Your task to perform on an android device: Clear the cart on newegg.com. Search for usb-a to usb-b on newegg.com, select the first entry, and add it to the cart. Image 0: 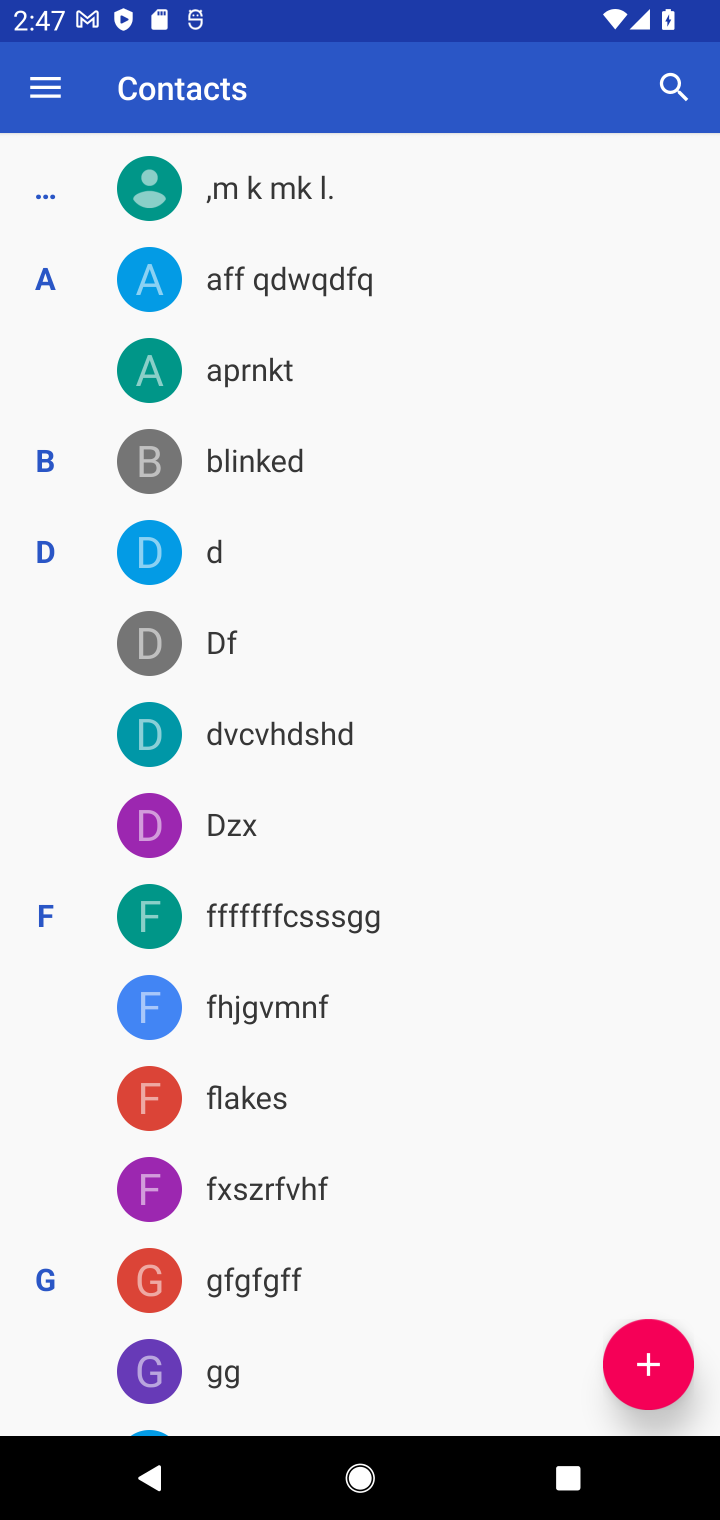
Step 0: press home button
Your task to perform on an android device: Clear the cart on newegg.com. Search for usb-a to usb-b on newegg.com, select the first entry, and add it to the cart. Image 1: 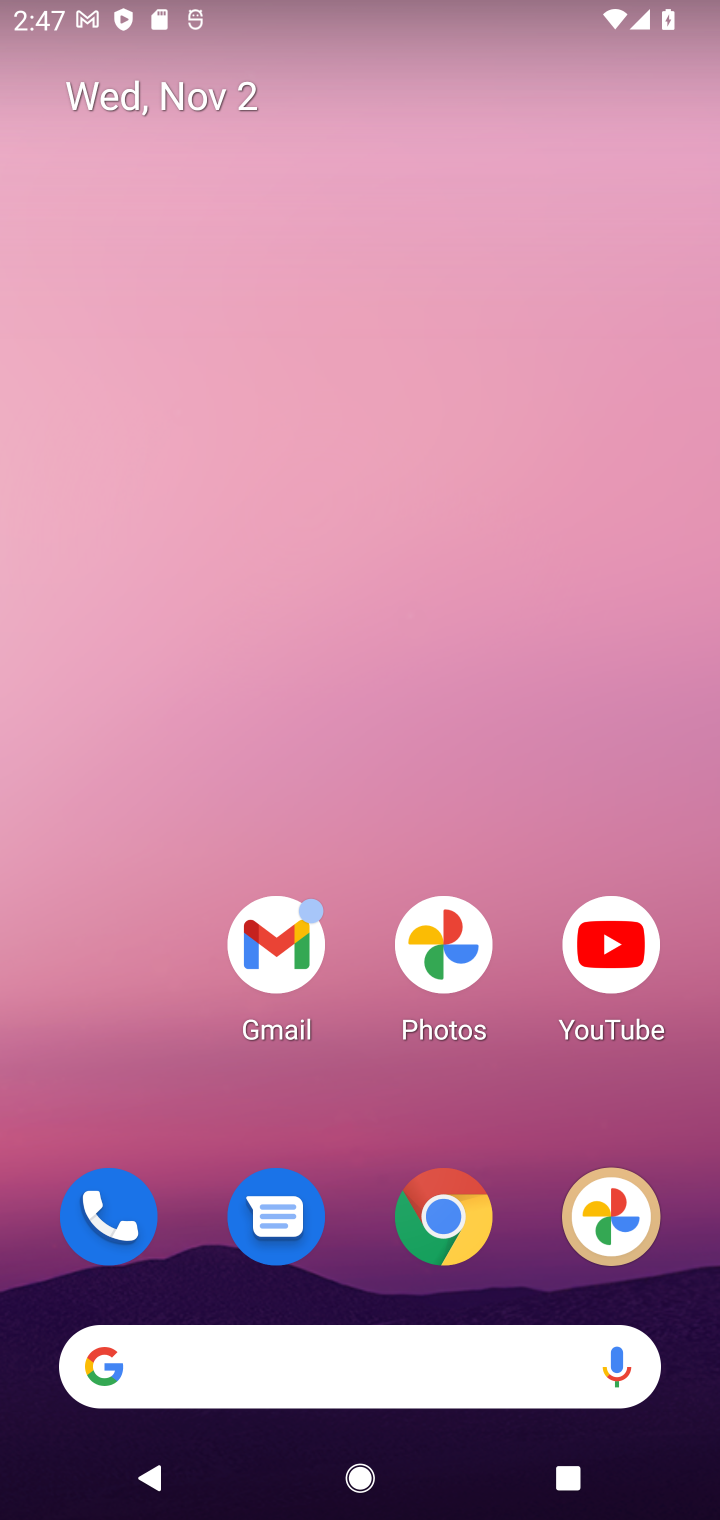
Step 1: click (433, 1229)
Your task to perform on an android device: Clear the cart on newegg.com. Search for usb-a to usb-b on newegg.com, select the first entry, and add it to the cart. Image 2: 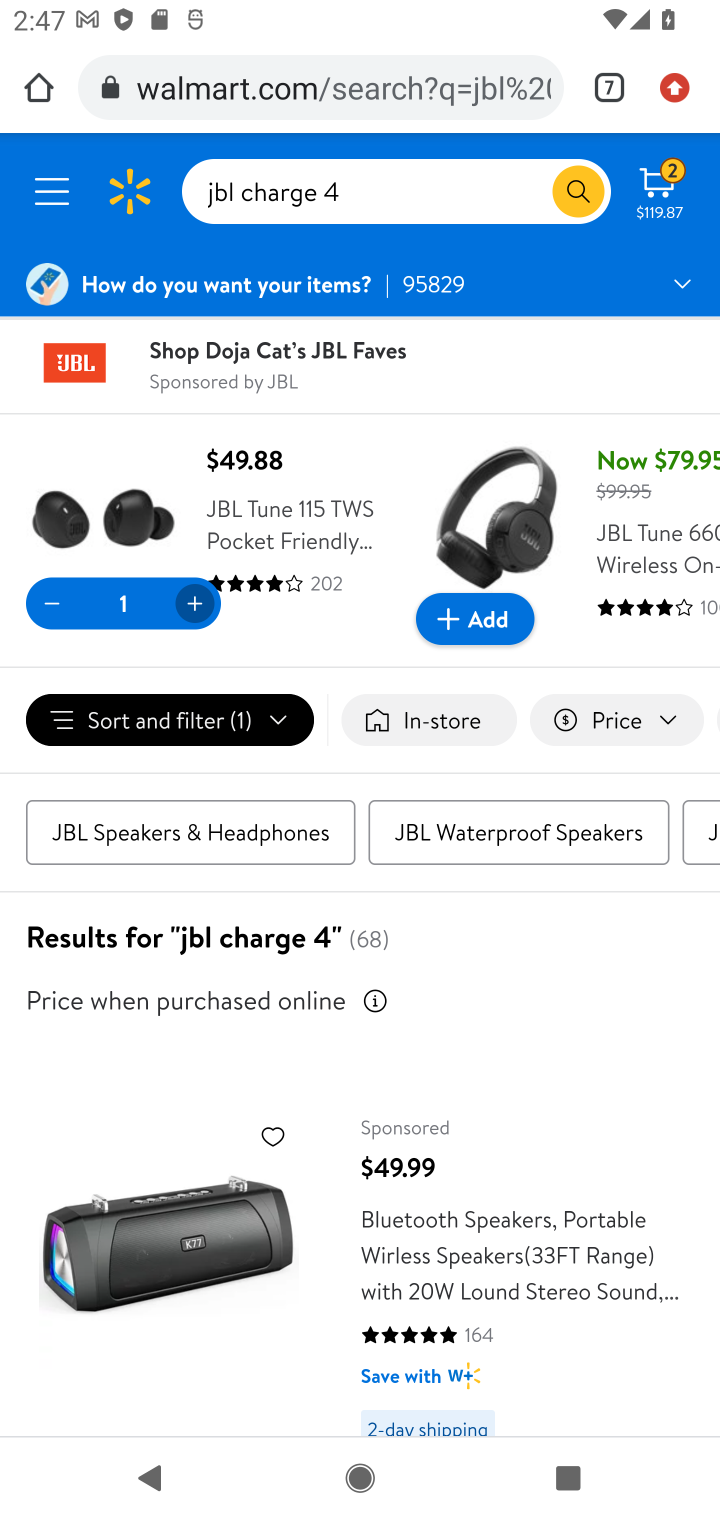
Step 2: click (608, 84)
Your task to perform on an android device: Clear the cart on newegg.com. Search for usb-a to usb-b on newegg.com, select the first entry, and add it to the cart. Image 3: 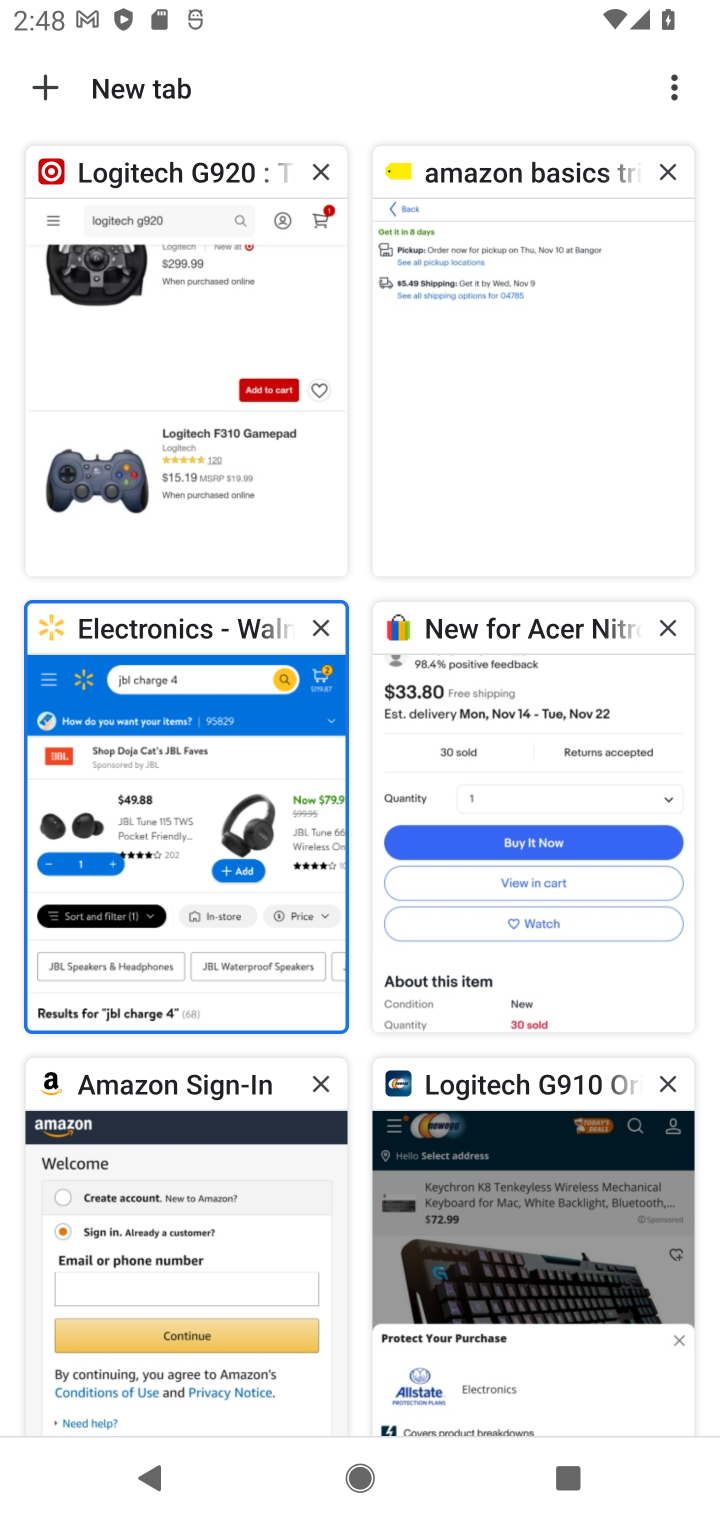
Step 3: click (474, 1139)
Your task to perform on an android device: Clear the cart on newegg.com. Search for usb-a to usb-b on newegg.com, select the first entry, and add it to the cart. Image 4: 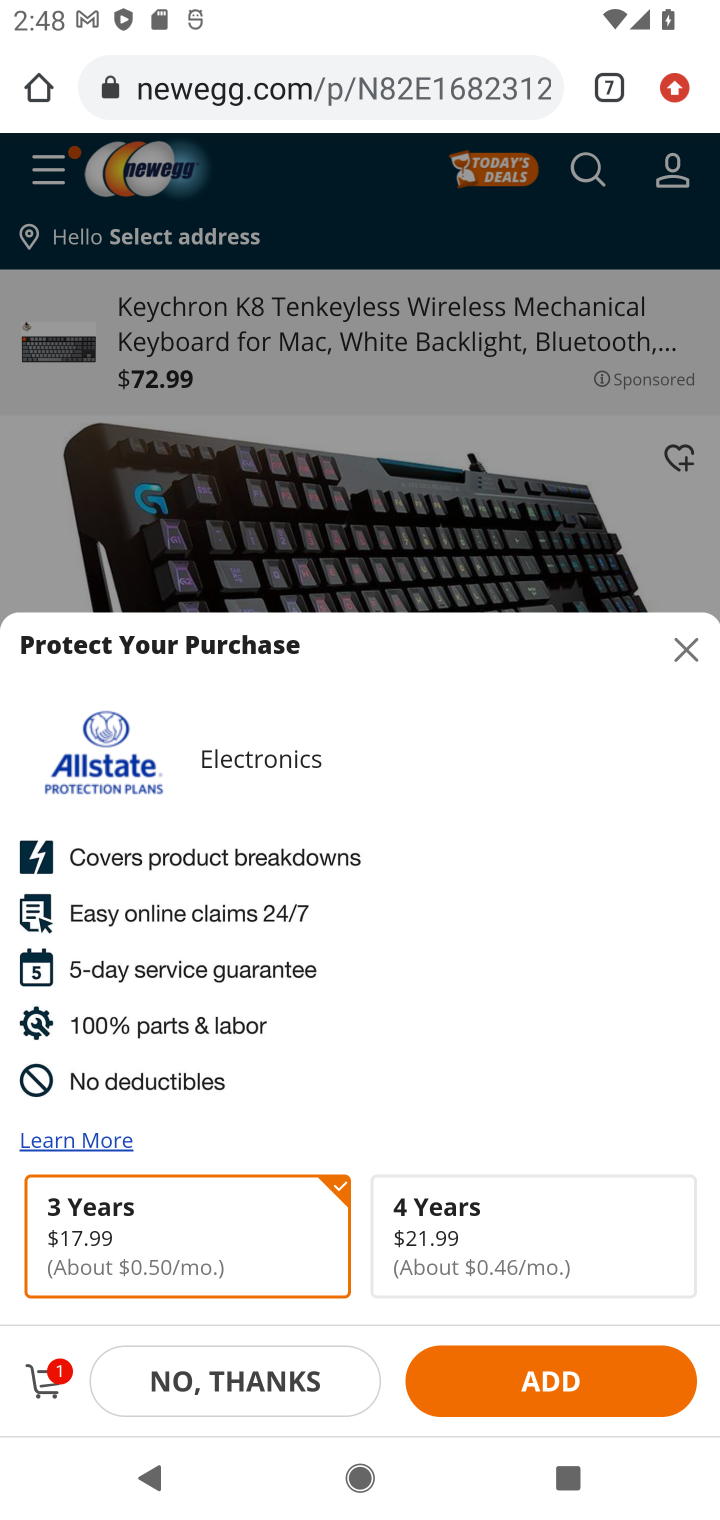
Step 4: click (266, 1382)
Your task to perform on an android device: Clear the cart on newegg.com. Search for usb-a to usb-b on newegg.com, select the first entry, and add it to the cart. Image 5: 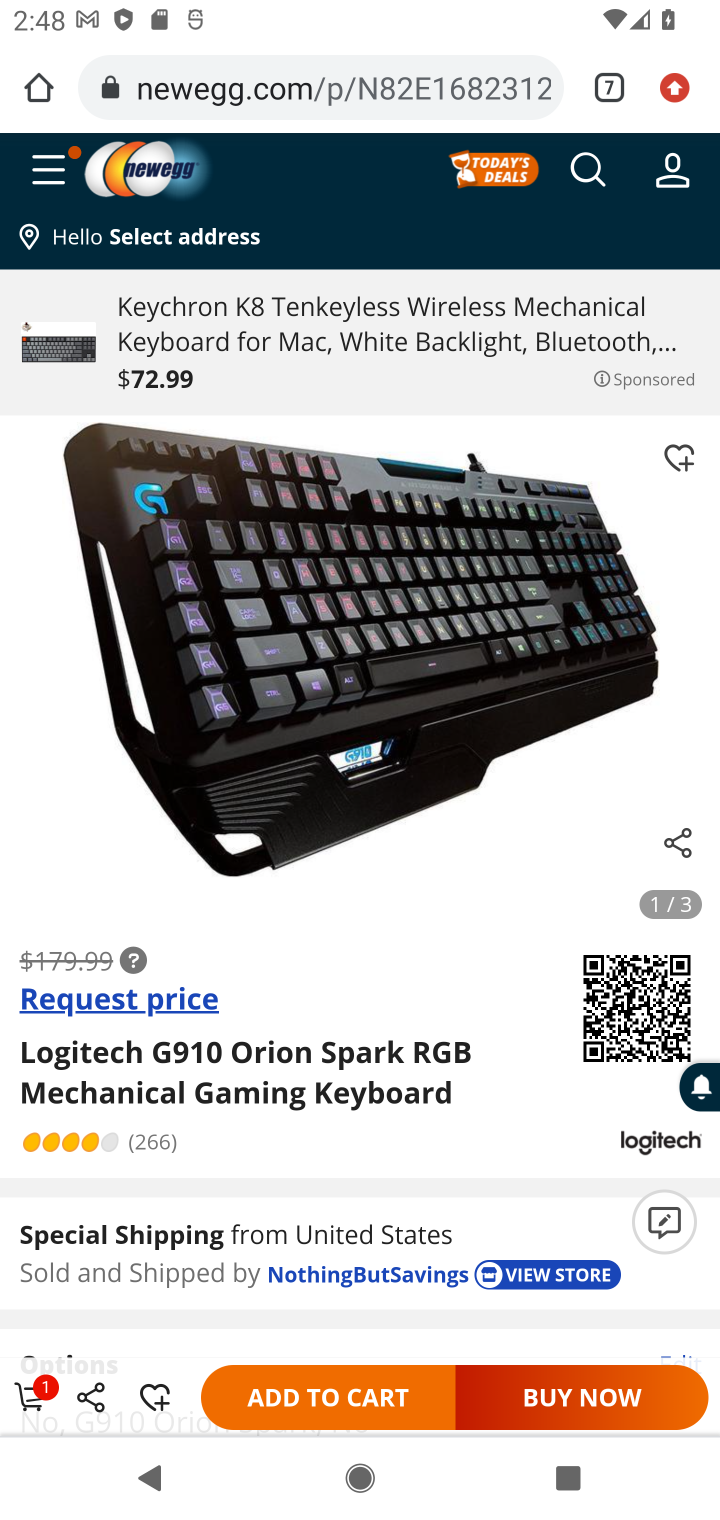
Step 5: click (592, 170)
Your task to perform on an android device: Clear the cart on newegg.com. Search for usb-a to usb-b on newegg.com, select the first entry, and add it to the cart. Image 6: 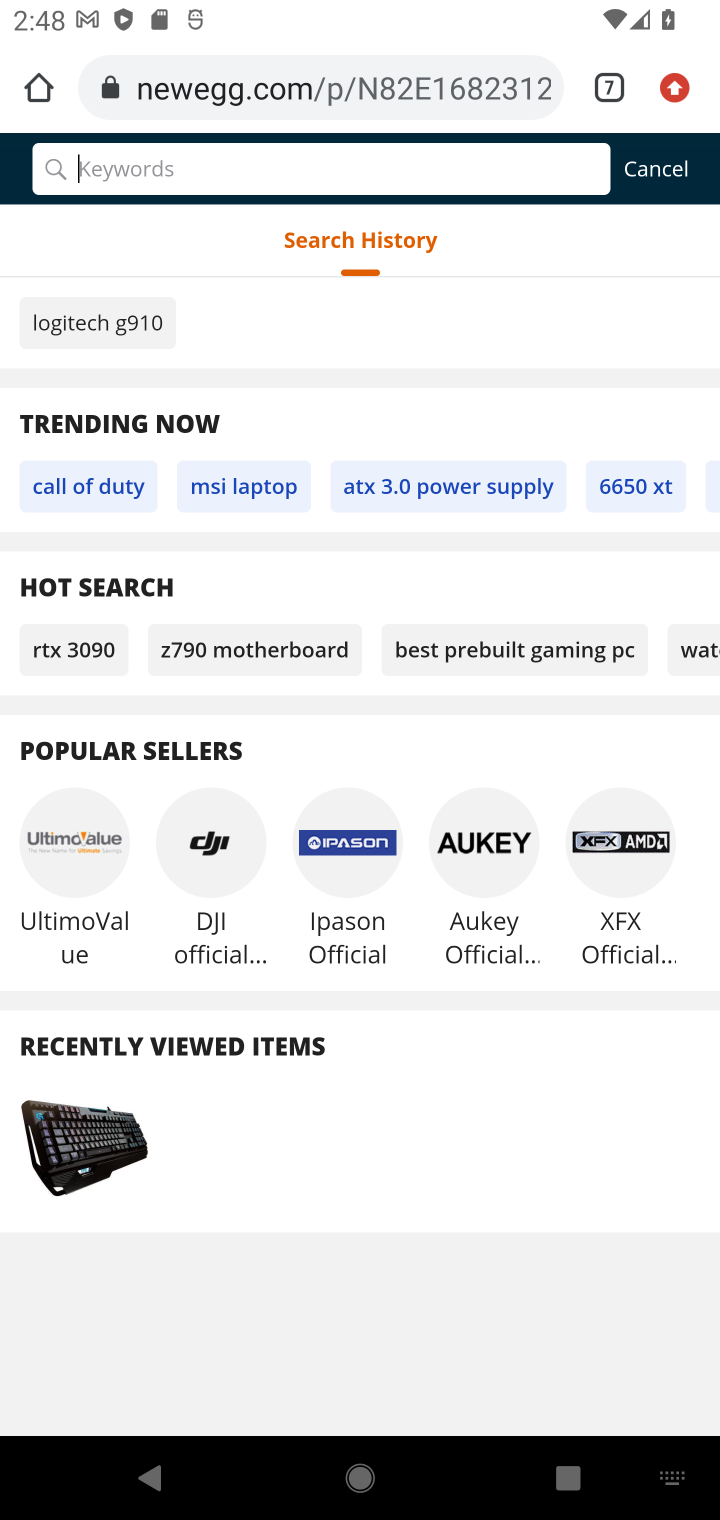
Step 6: type "usb-a to usb-b"
Your task to perform on an android device: Clear the cart on newegg.com. Search for usb-a to usb-b on newegg.com, select the first entry, and add it to the cart. Image 7: 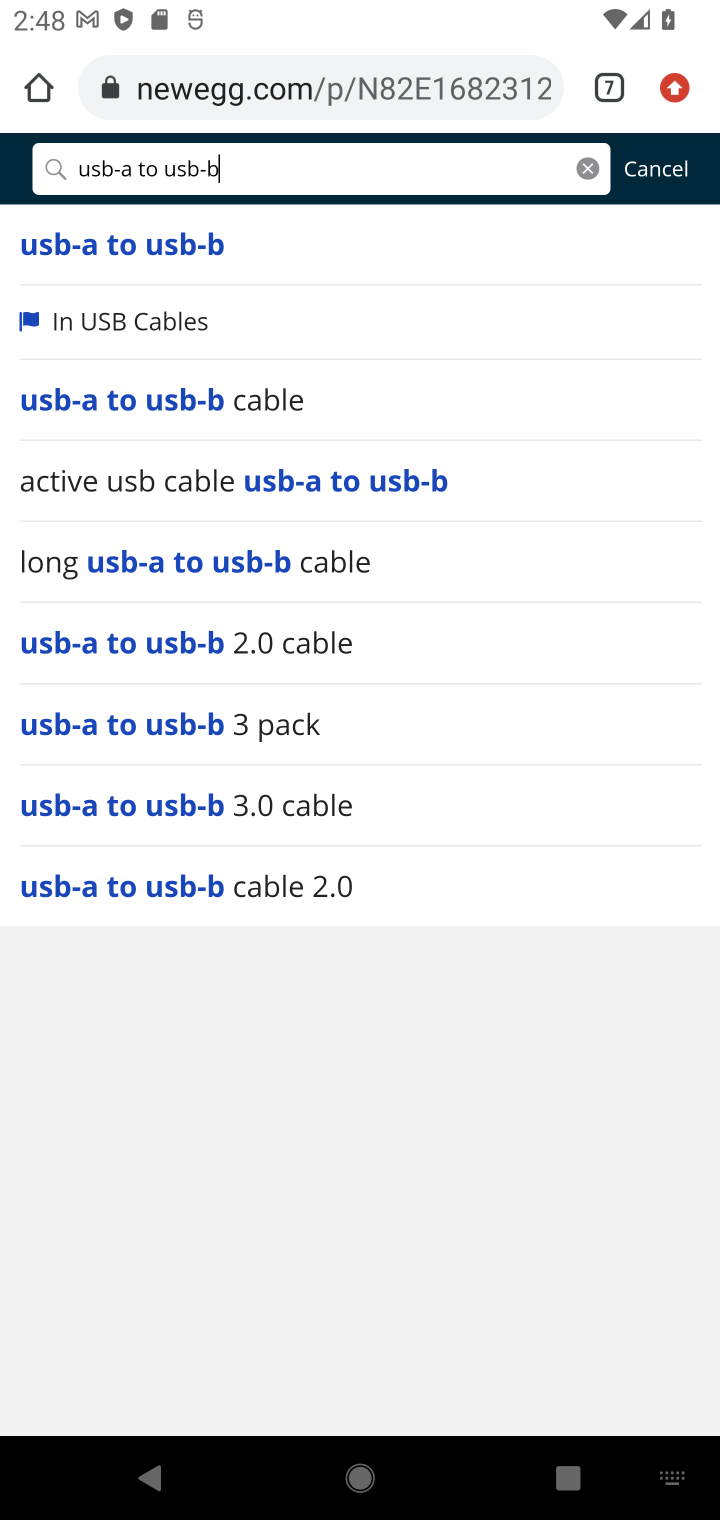
Step 7: click (182, 243)
Your task to perform on an android device: Clear the cart on newegg.com. Search for usb-a to usb-b on newegg.com, select the first entry, and add it to the cart. Image 8: 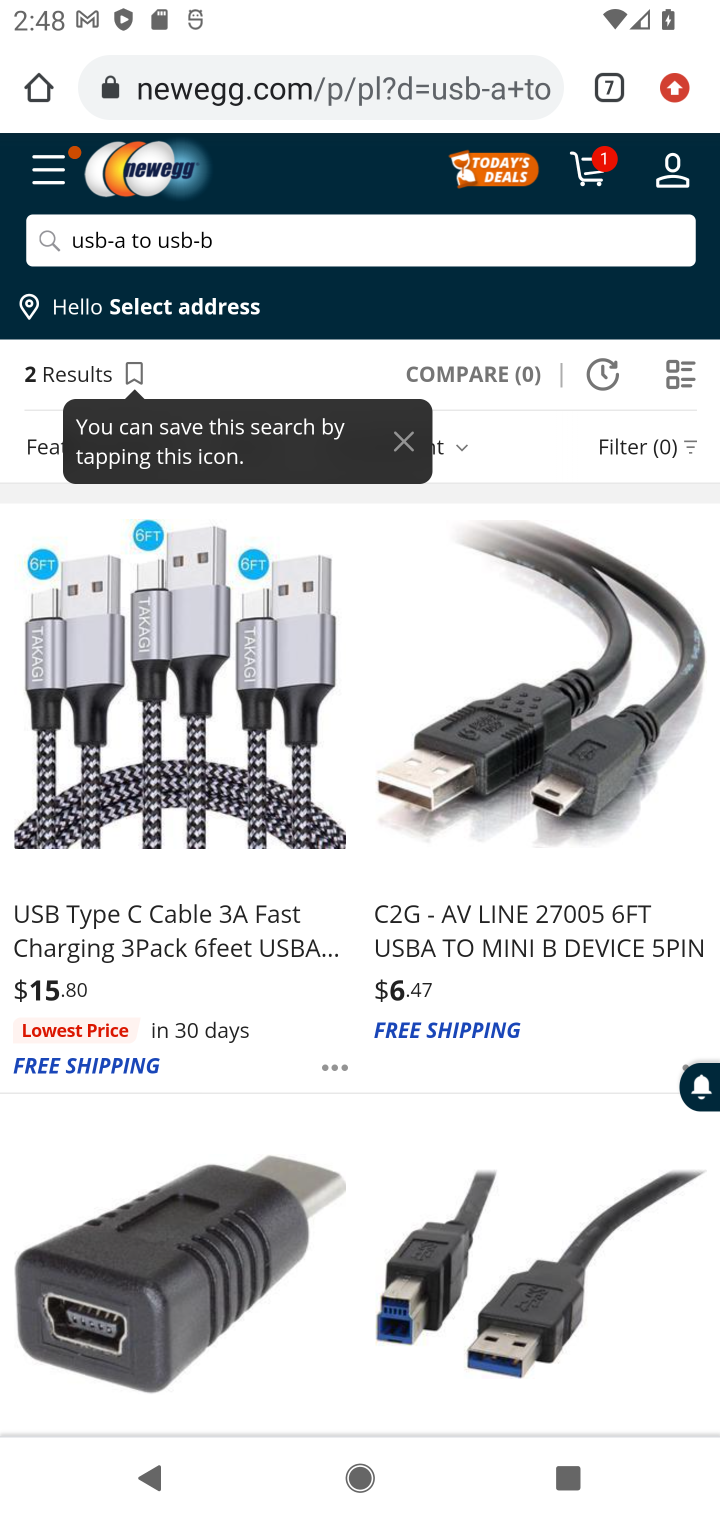
Step 8: click (152, 939)
Your task to perform on an android device: Clear the cart on newegg.com. Search for usb-a to usb-b on newegg.com, select the first entry, and add it to the cart. Image 9: 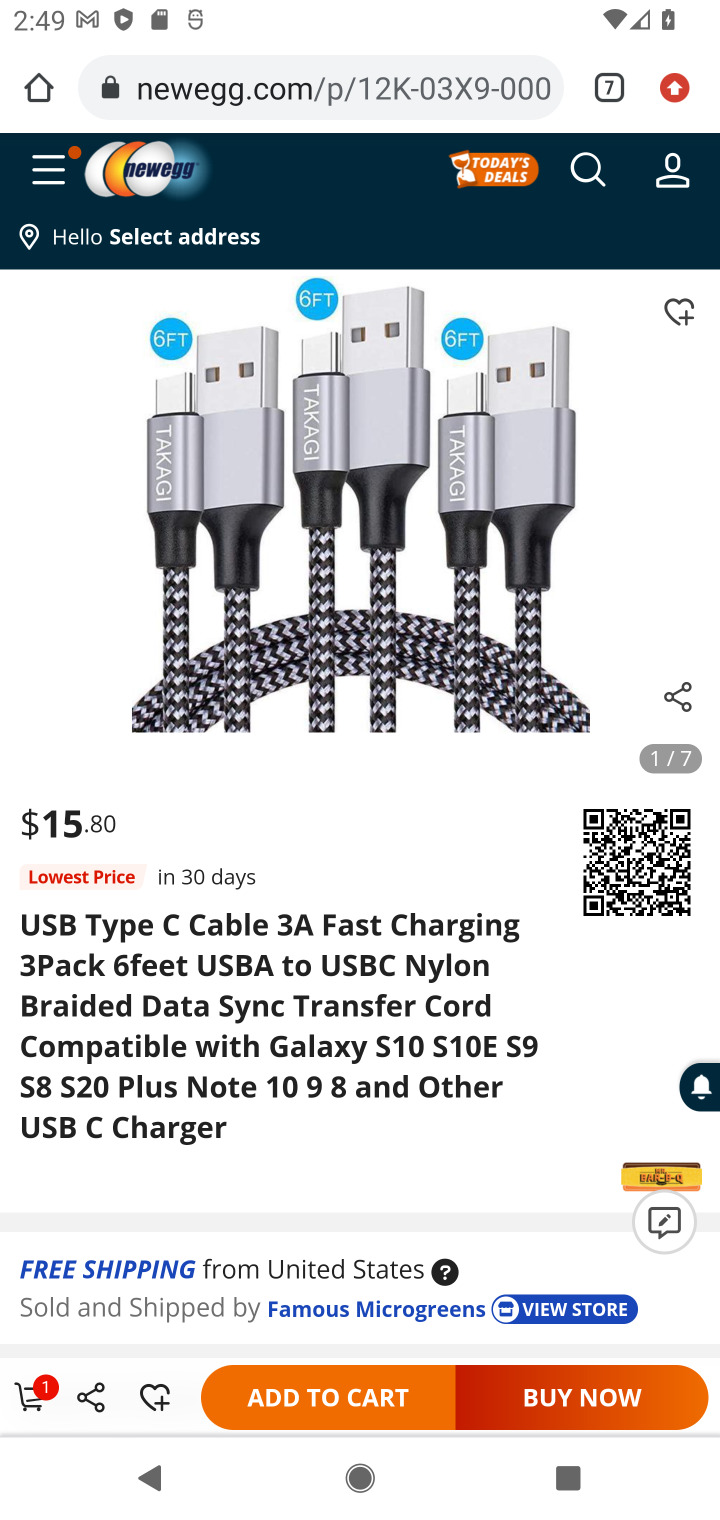
Step 9: click (288, 1391)
Your task to perform on an android device: Clear the cart on newegg.com. Search for usb-a to usb-b on newegg.com, select the first entry, and add it to the cart. Image 10: 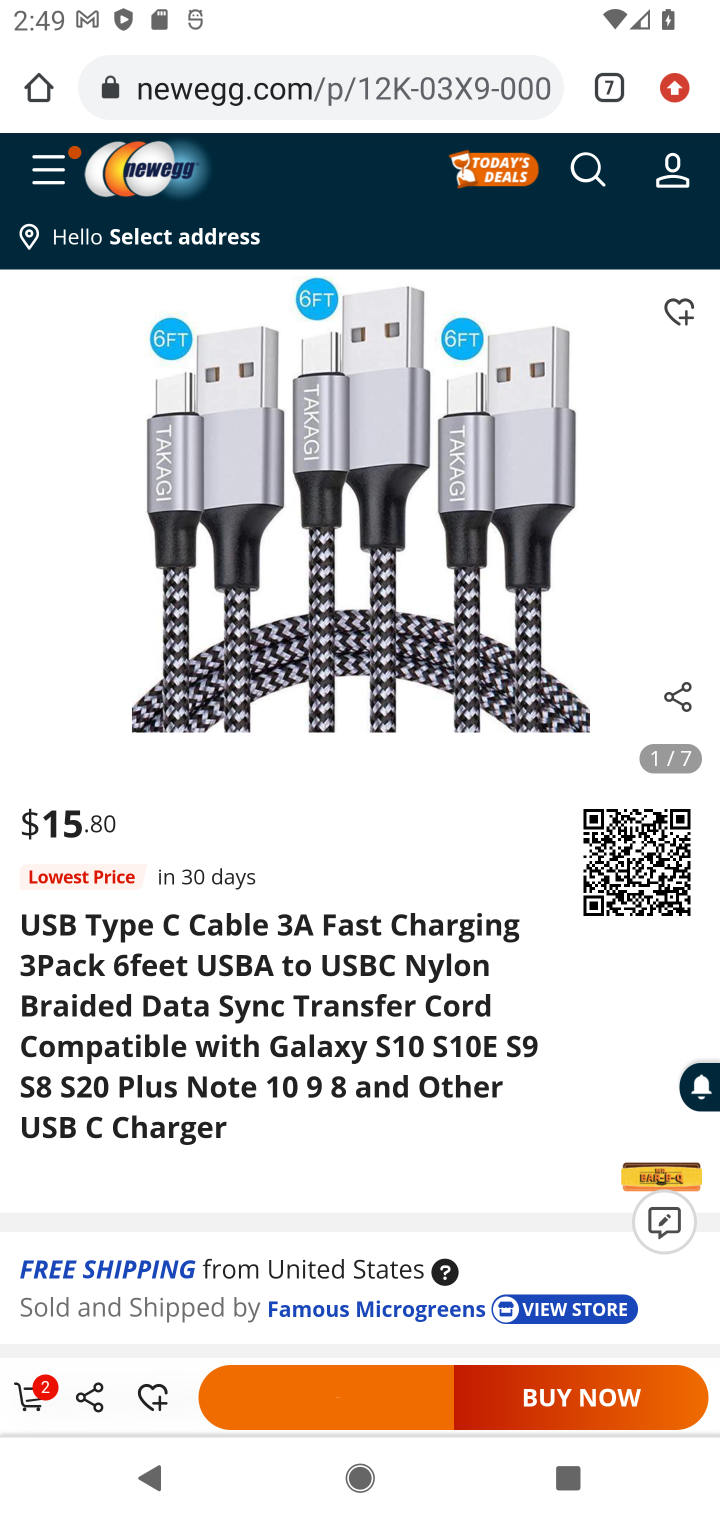
Step 10: task complete